Your task to perform on an android device: Search for sushi restaurants on Maps Image 0: 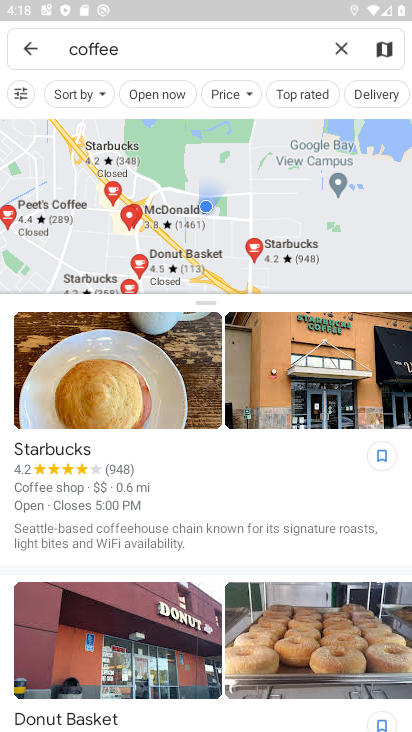
Step 0: press home button
Your task to perform on an android device: Search for sushi restaurants on Maps Image 1: 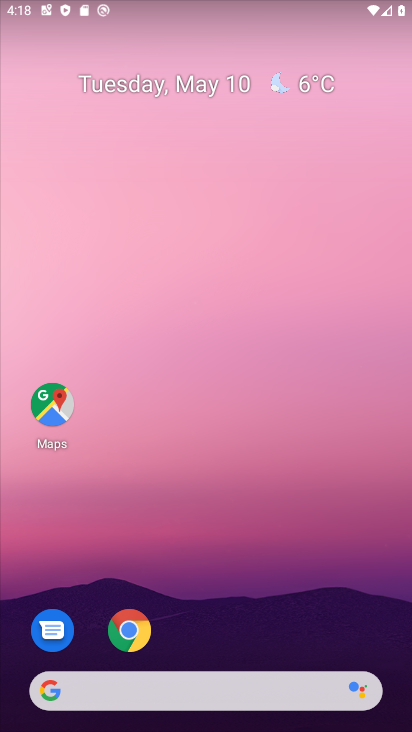
Step 1: drag from (354, 621) to (309, 185)
Your task to perform on an android device: Search for sushi restaurants on Maps Image 2: 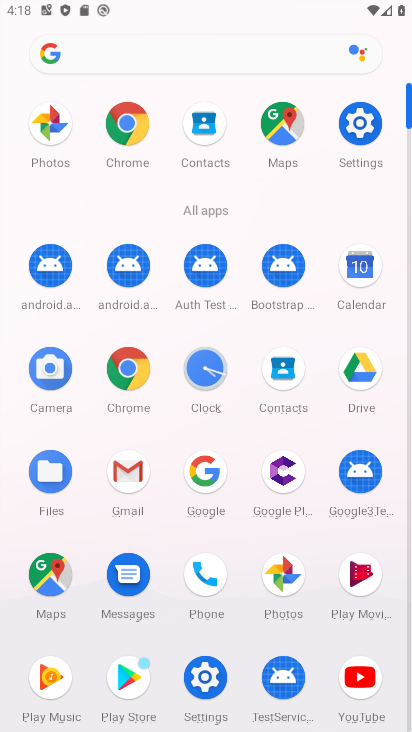
Step 2: click (283, 121)
Your task to perform on an android device: Search for sushi restaurants on Maps Image 3: 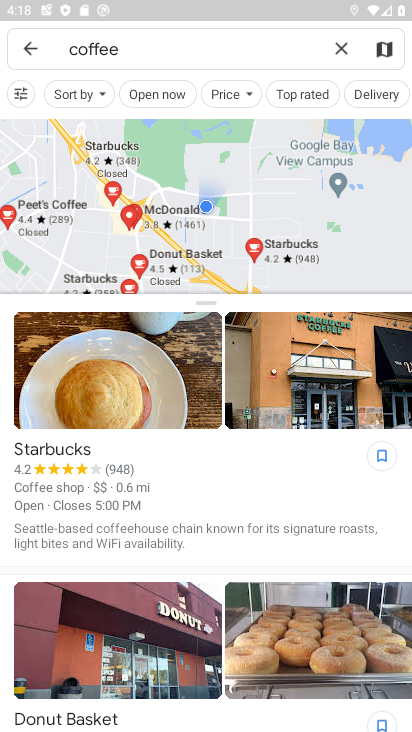
Step 3: click (147, 37)
Your task to perform on an android device: Search for sushi restaurants on Maps Image 4: 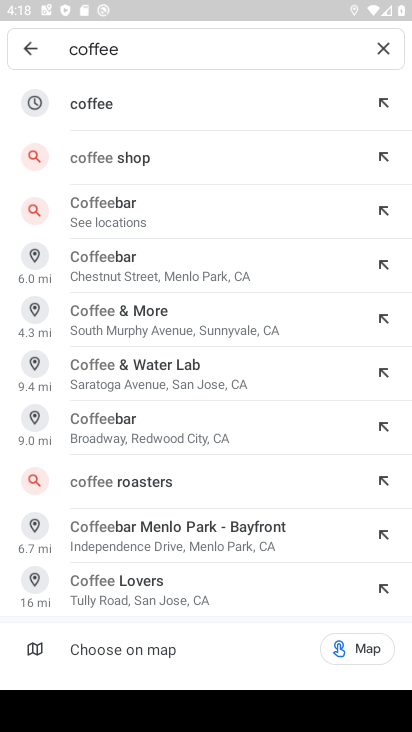
Step 4: click (382, 42)
Your task to perform on an android device: Search for sushi restaurants on Maps Image 5: 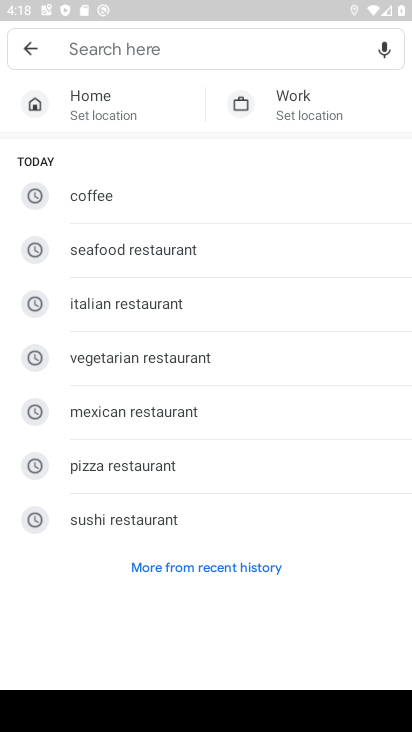
Step 5: type "sushi restaurants"
Your task to perform on an android device: Search for sushi restaurants on Maps Image 6: 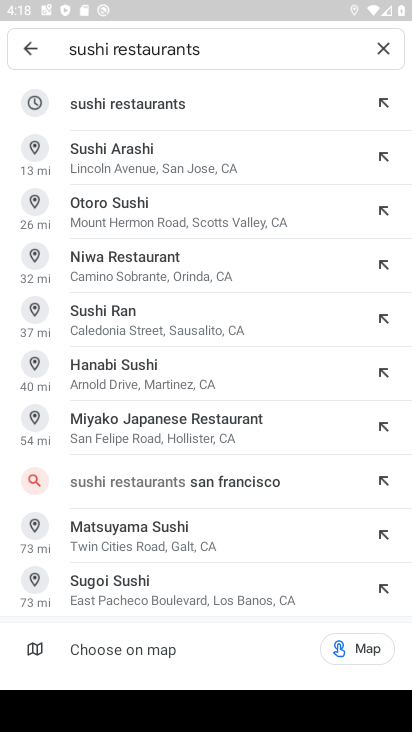
Step 6: click (135, 97)
Your task to perform on an android device: Search for sushi restaurants on Maps Image 7: 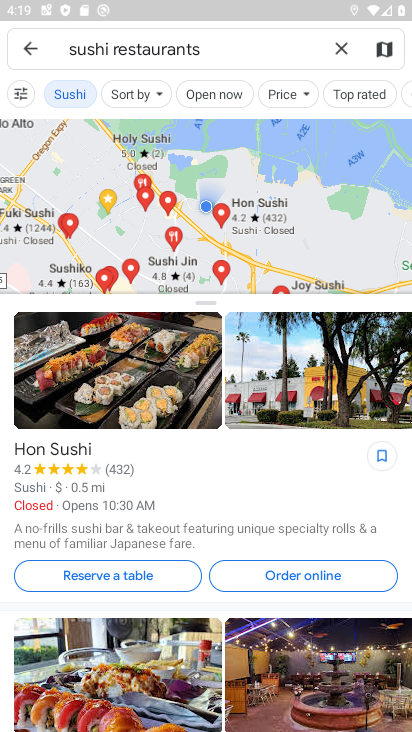
Step 7: task complete